Your task to perform on an android device: Turn off the flashlight Image 0: 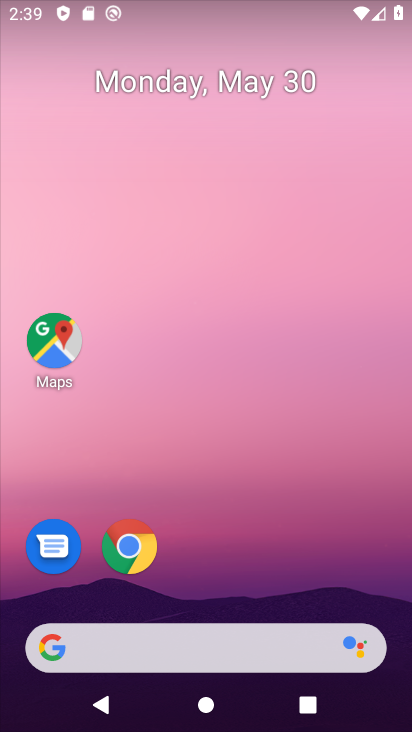
Step 0: drag from (263, 541) to (208, 64)
Your task to perform on an android device: Turn off the flashlight Image 1: 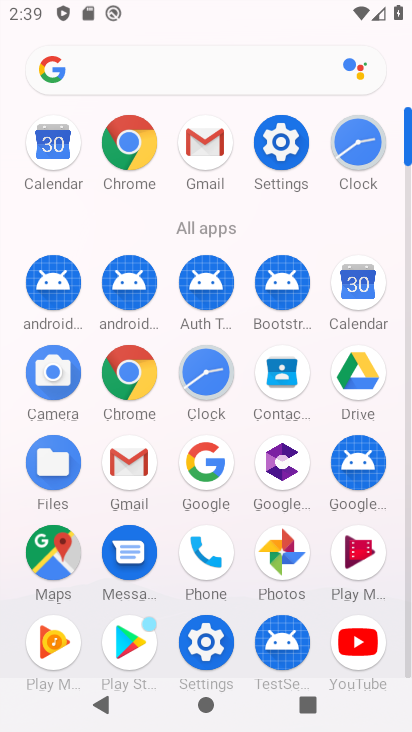
Step 1: click (280, 138)
Your task to perform on an android device: Turn off the flashlight Image 2: 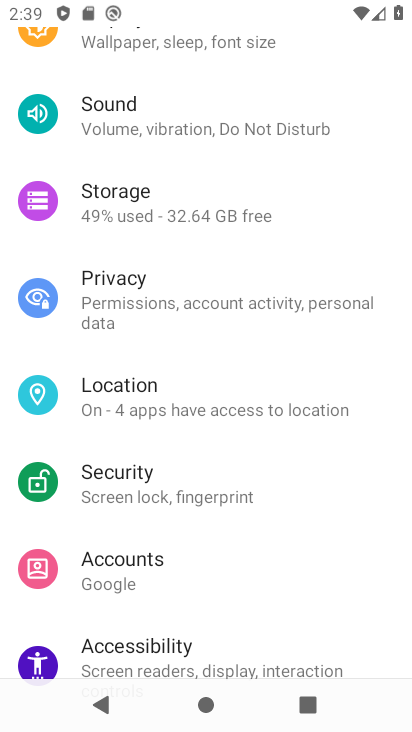
Step 2: drag from (280, 157) to (324, 523)
Your task to perform on an android device: Turn off the flashlight Image 3: 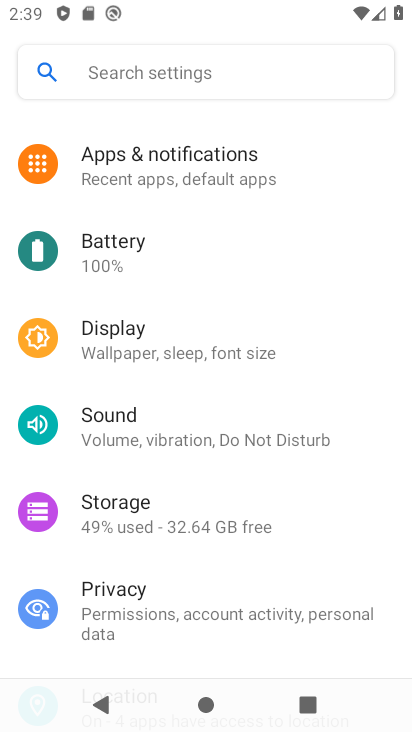
Step 3: drag from (274, 289) to (225, 559)
Your task to perform on an android device: Turn off the flashlight Image 4: 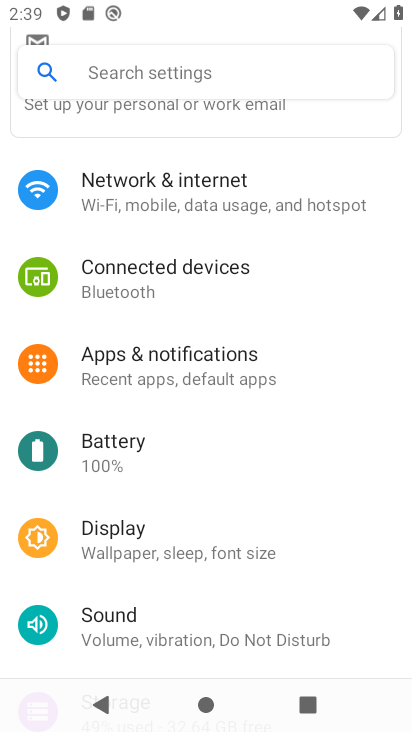
Step 4: drag from (220, 369) to (254, 192)
Your task to perform on an android device: Turn off the flashlight Image 5: 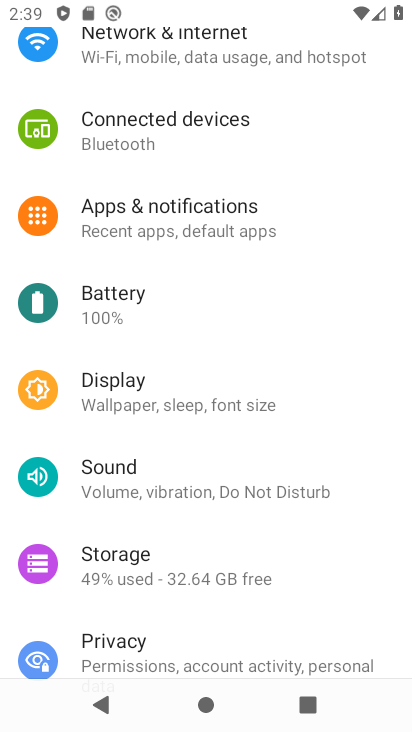
Step 5: drag from (190, 590) to (196, 219)
Your task to perform on an android device: Turn off the flashlight Image 6: 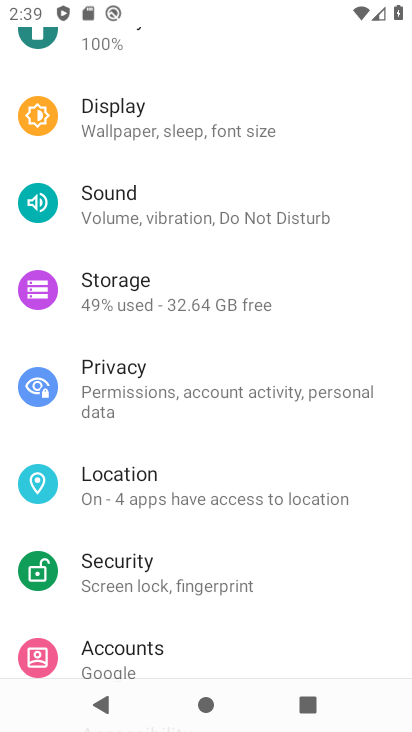
Step 6: drag from (185, 227) to (203, 598)
Your task to perform on an android device: Turn off the flashlight Image 7: 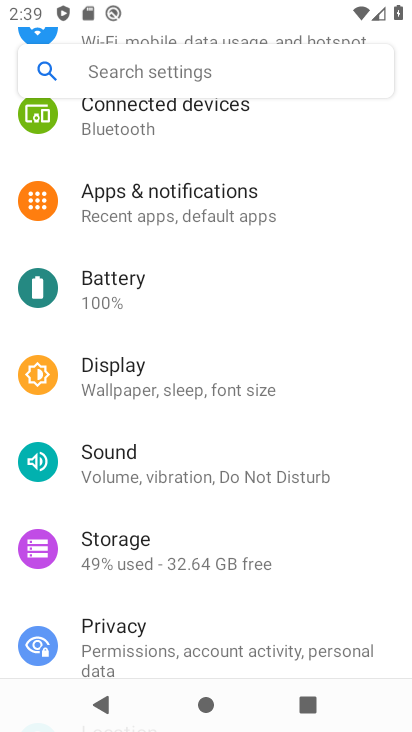
Step 7: click (181, 370)
Your task to perform on an android device: Turn off the flashlight Image 8: 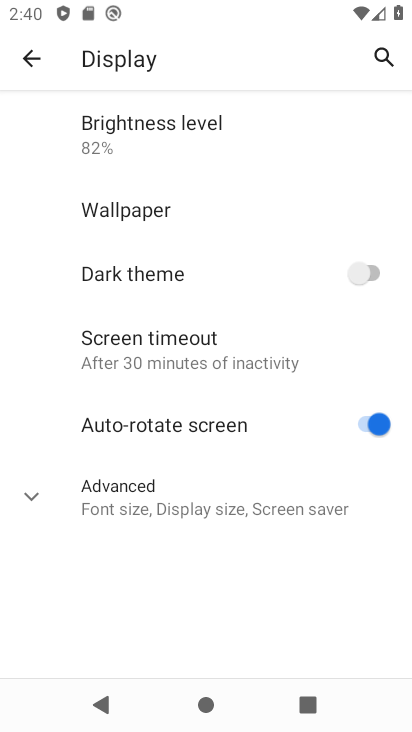
Step 8: task complete